Your task to perform on an android device: turn vacation reply on in the gmail app Image 0: 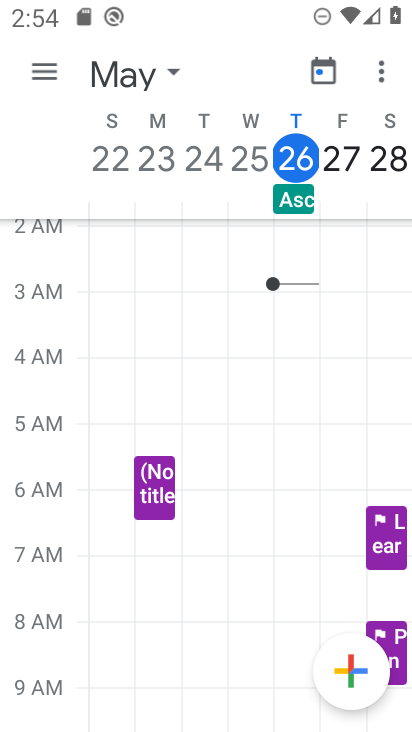
Step 0: press back button
Your task to perform on an android device: turn vacation reply on in the gmail app Image 1: 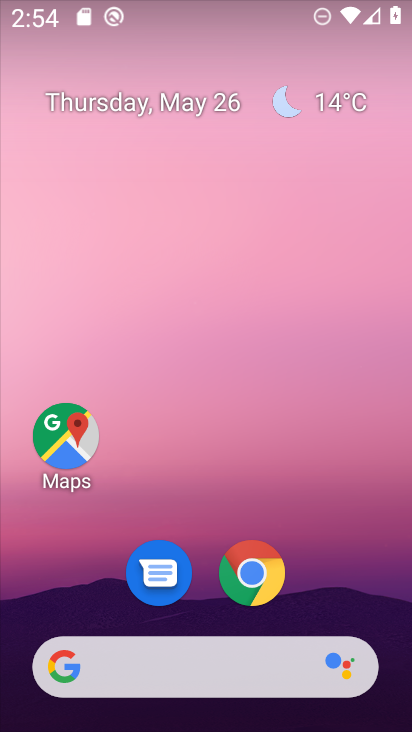
Step 1: drag from (329, 565) to (261, 1)
Your task to perform on an android device: turn vacation reply on in the gmail app Image 2: 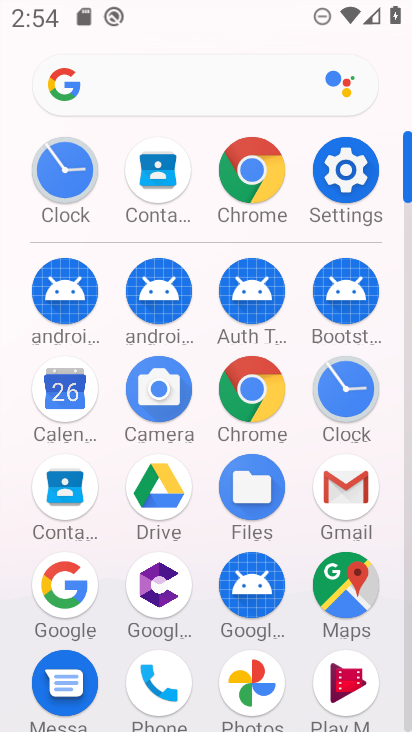
Step 2: drag from (8, 529) to (19, 296)
Your task to perform on an android device: turn vacation reply on in the gmail app Image 3: 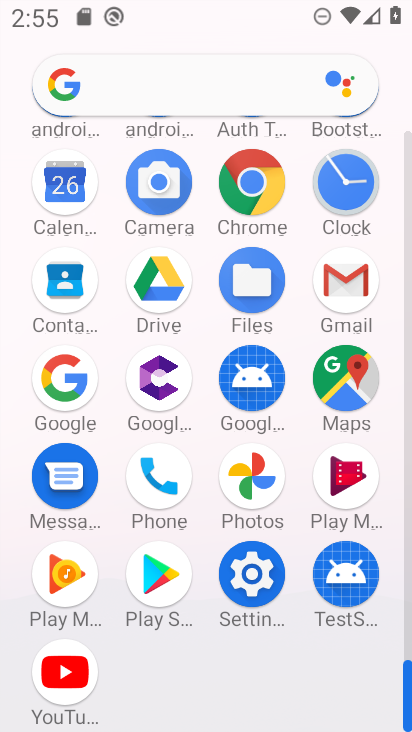
Step 3: click (343, 274)
Your task to perform on an android device: turn vacation reply on in the gmail app Image 4: 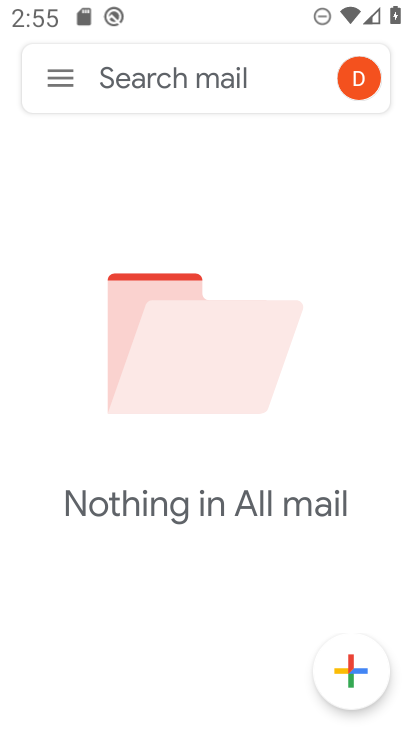
Step 4: click (54, 71)
Your task to perform on an android device: turn vacation reply on in the gmail app Image 5: 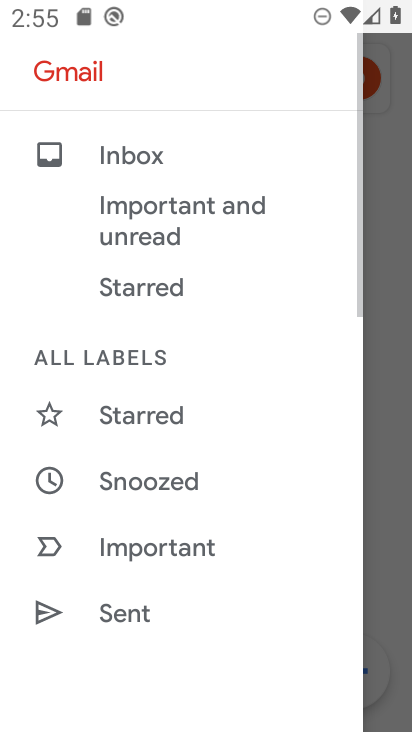
Step 5: drag from (179, 540) to (197, 132)
Your task to perform on an android device: turn vacation reply on in the gmail app Image 6: 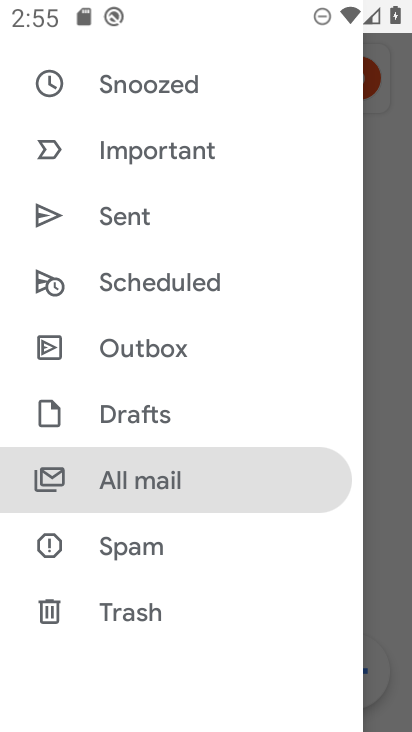
Step 6: drag from (151, 654) to (156, 221)
Your task to perform on an android device: turn vacation reply on in the gmail app Image 7: 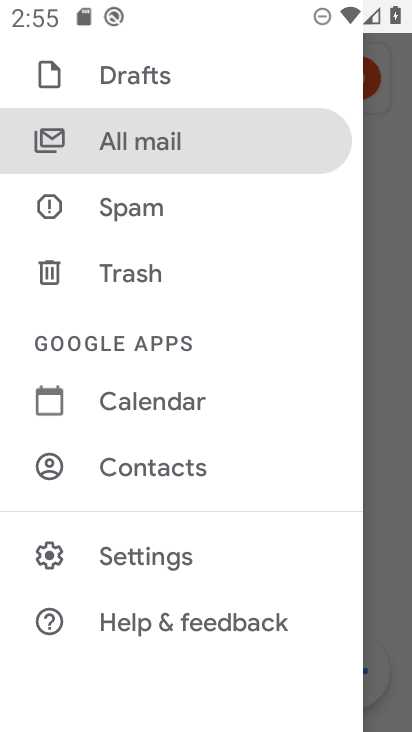
Step 7: drag from (193, 549) to (202, 276)
Your task to perform on an android device: turn vacation reply on in the gmail app Image 8: 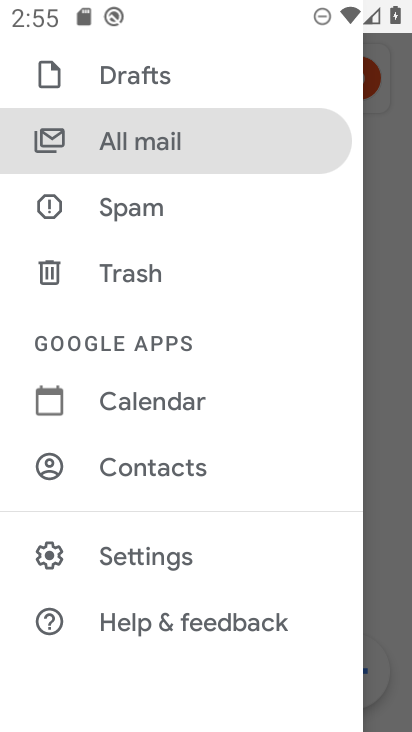
Step 8: click (121, 539)
Your task to perform on an android device: turn vacation reply on in the gmail app Image 9: 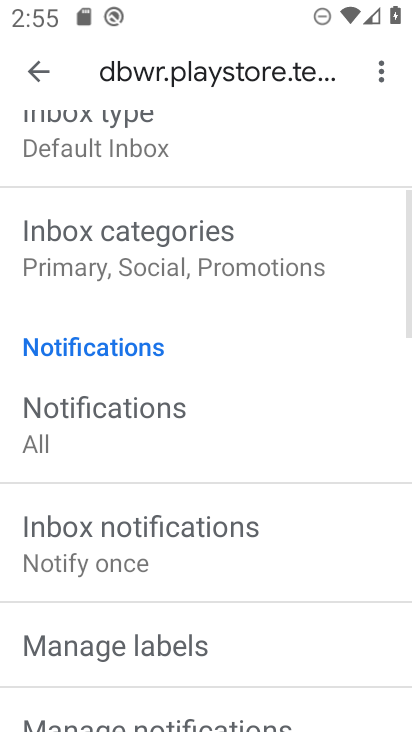
Step 9: drag from (273, 604) to (282, 169)
Your task to perform on an android device: turn vacation reply on in the gmail app Image 10: 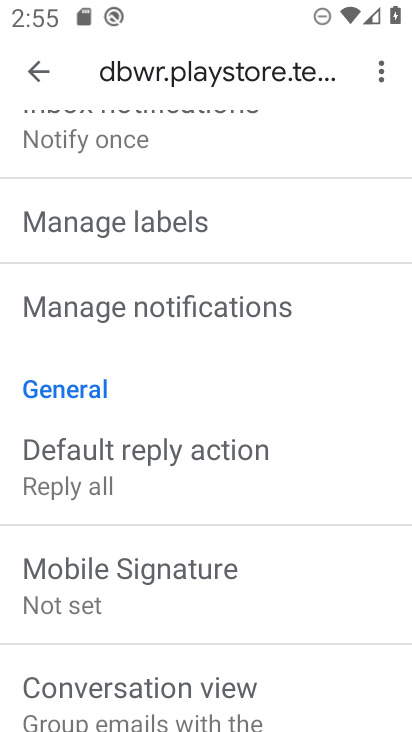
Step 10: drag from (257, 192) to (227, 618)
Your task to perform on an android device: turn vacation reply on in the gmail app Image 11: 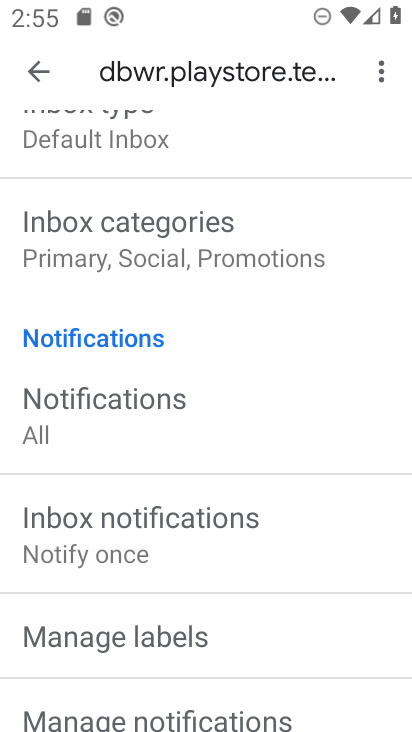
Step 11: drag from (272, 189) to (268, 508)
Your task to perform on an android device: turn vacation reply on in the gmail app Image 12: 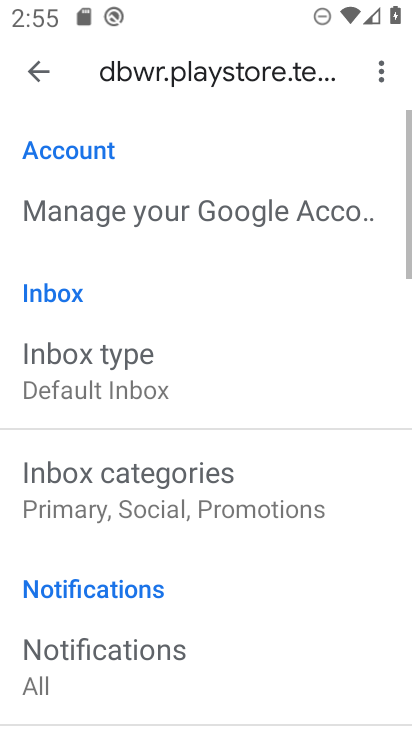
Step 12: drag from (259, 483) to (274, 113)
Your task to perform on an android device: turn vacation reply on in the gmail app Image 13: 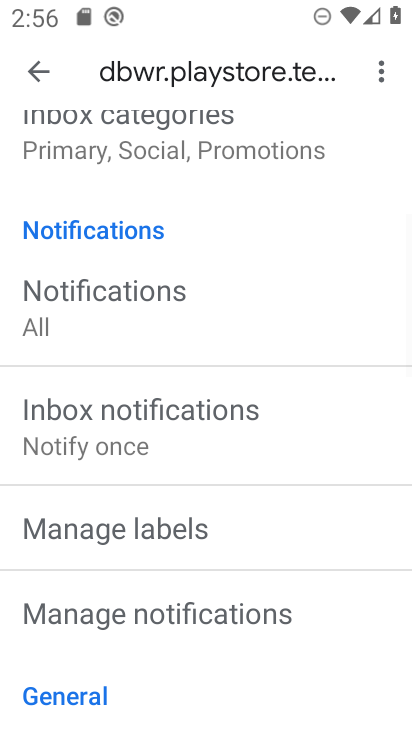
Step 13: drag from (192, 579) to (232, 217)
Your task to perform on an android device: turn vacation reply on in the gmail app Image 14: 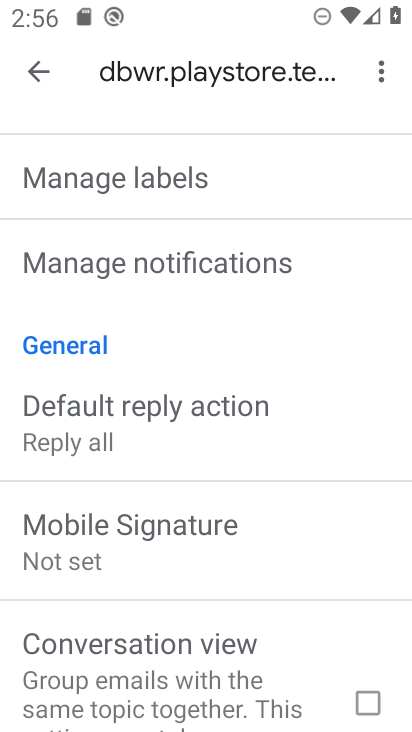
Step 14: drag from (233, 509) to (244, 210)
Your task to perform on an android device: turn vacation reply on in the gmail app Image 15: 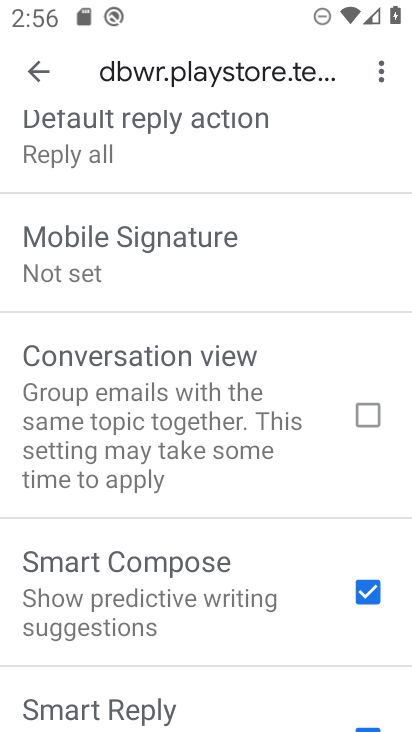
Step 15: drag from (161, 515) to (167, 135)
Your task to perform on an android device: turn vacation reply on in the gmail app Image 16: 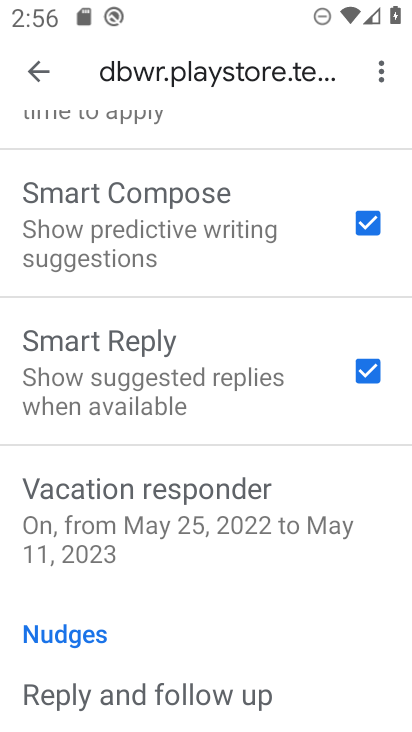
Step 16: click (170, 505)
Your task to perform on an android device: turn vacation reply on in the gmail app Image 17: 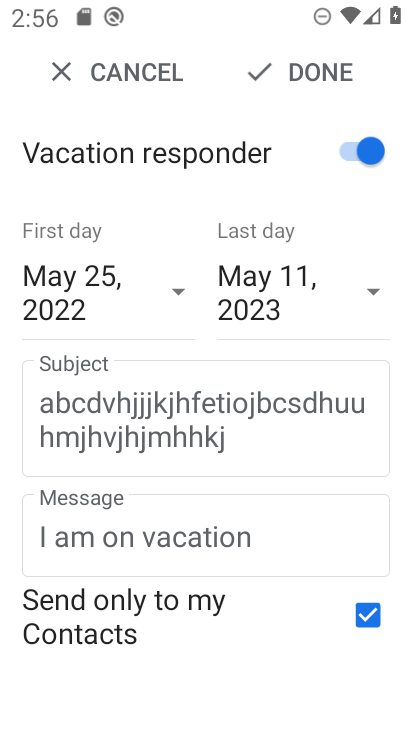
Step 17: click (305, 56)
Your task to perform on an android device: turn vacation reply on in the gmail app Image 18: 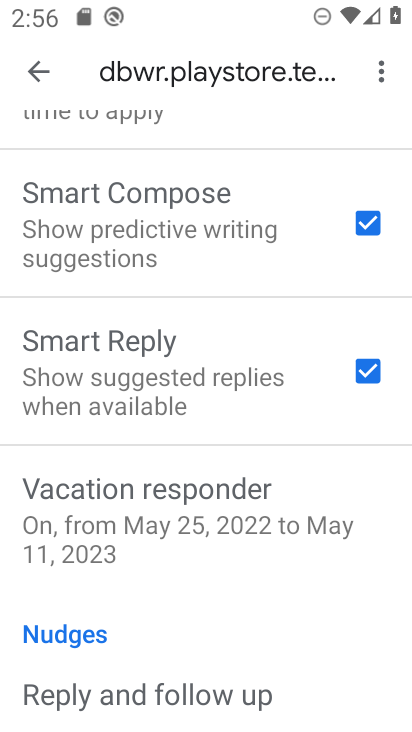
Step 18: task complete